Your task to perform on an android device: Open the calendar and show me this week's events? Image 0: 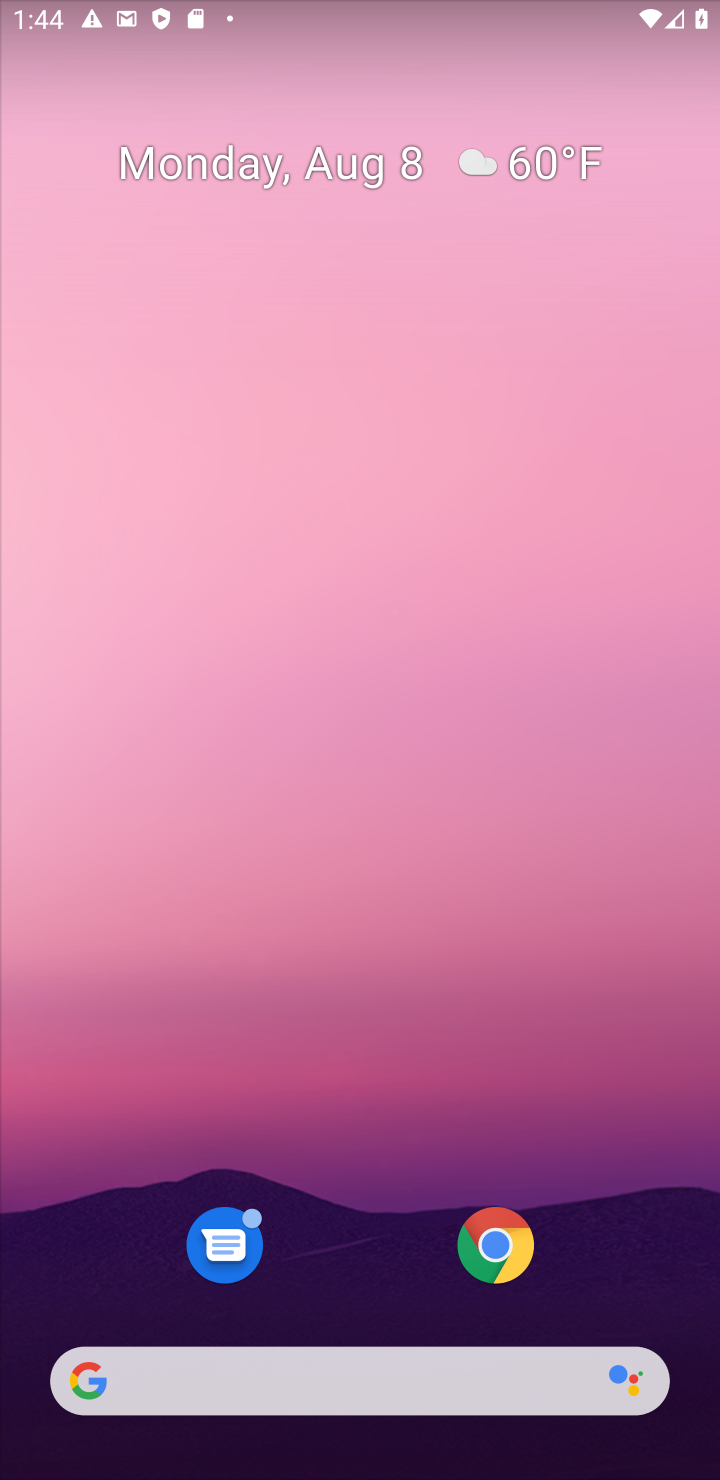
Step 0: drag from (363, 1094) to (243, 114)
Your task to perform on an android device: Open the calendar and show me this week's events? Image 1: 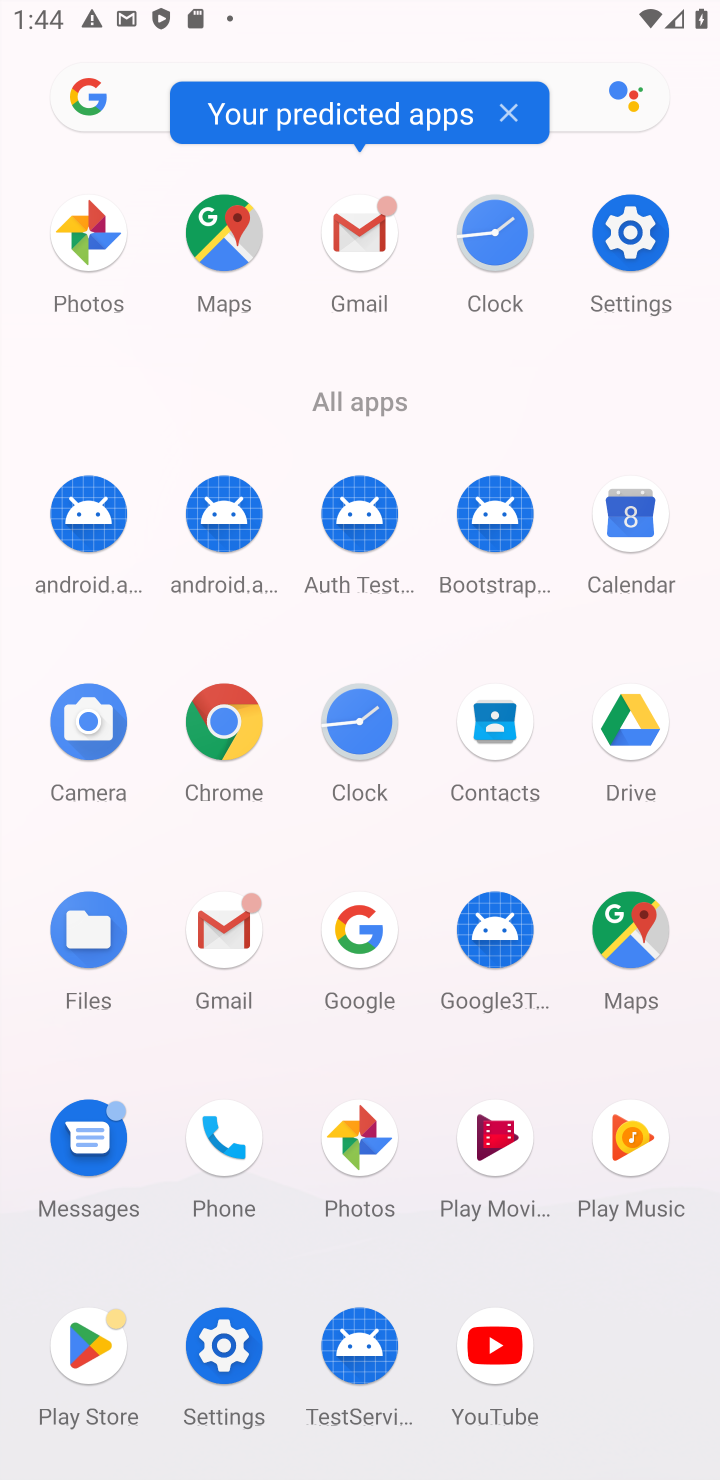
Step 1: click (625, 498)
Your task to perform on an android device: Open the calendar and show me this week's events? Image 2: 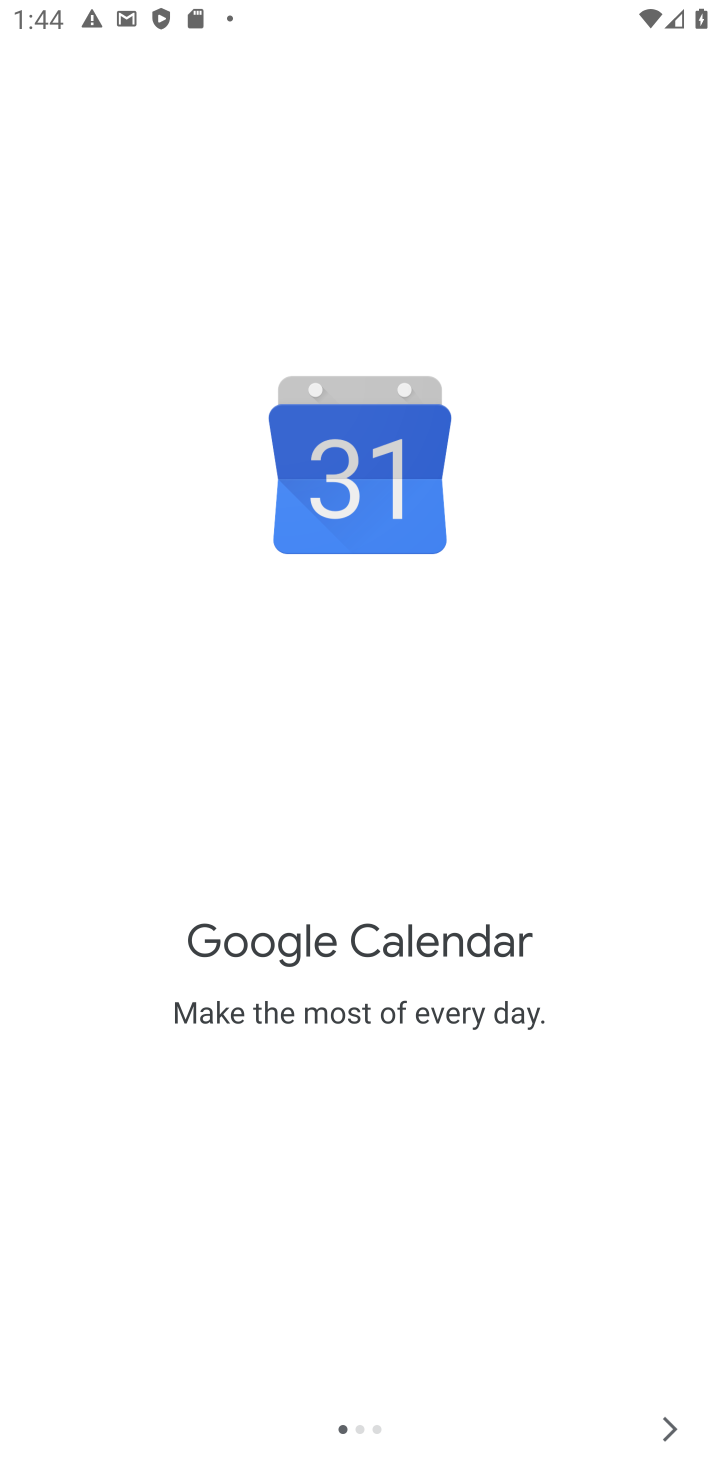
Step 2: click (668, 1426)
Your task to perform on an android device: Open the calendar and show me this week's events? Image 3: 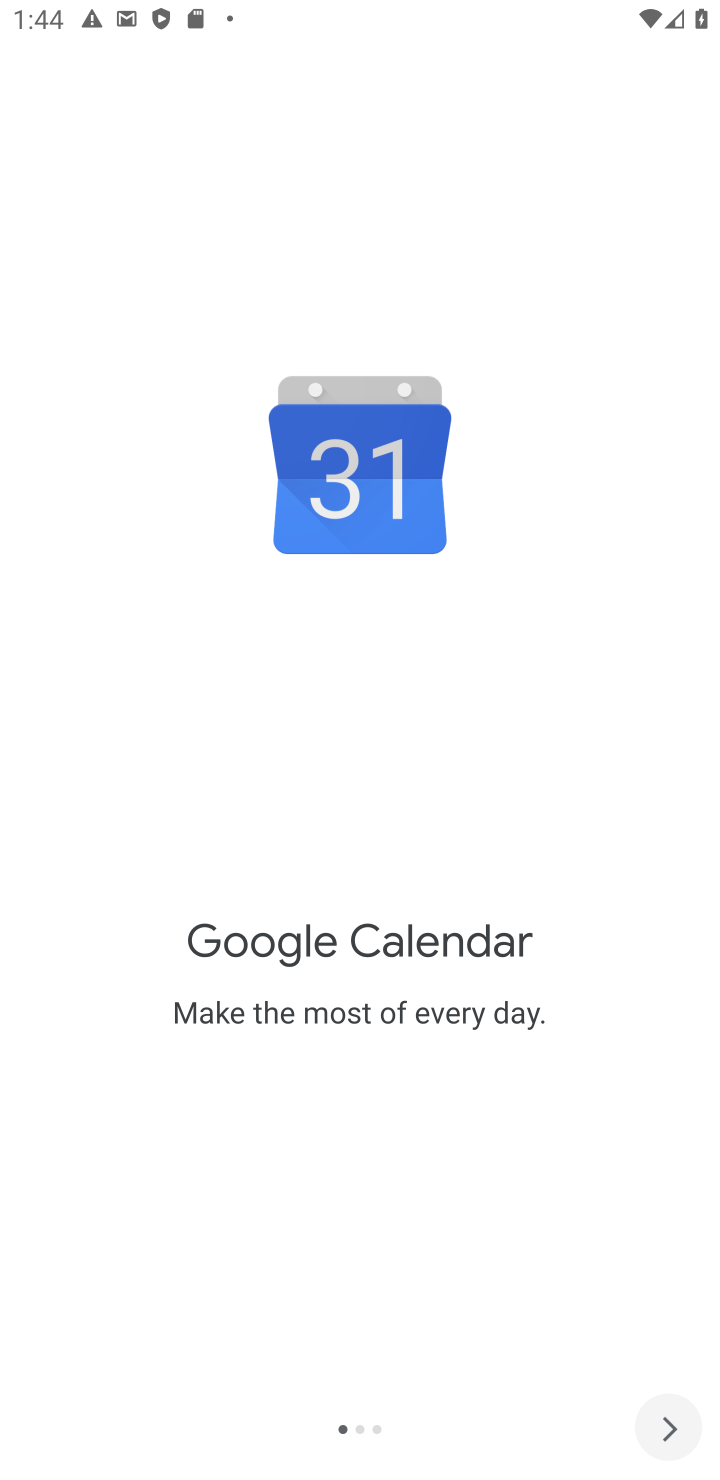
Step 3: click (668, 1426)
Your task to perform on an android device: Open the calendar and show me this week's events? Image 4: 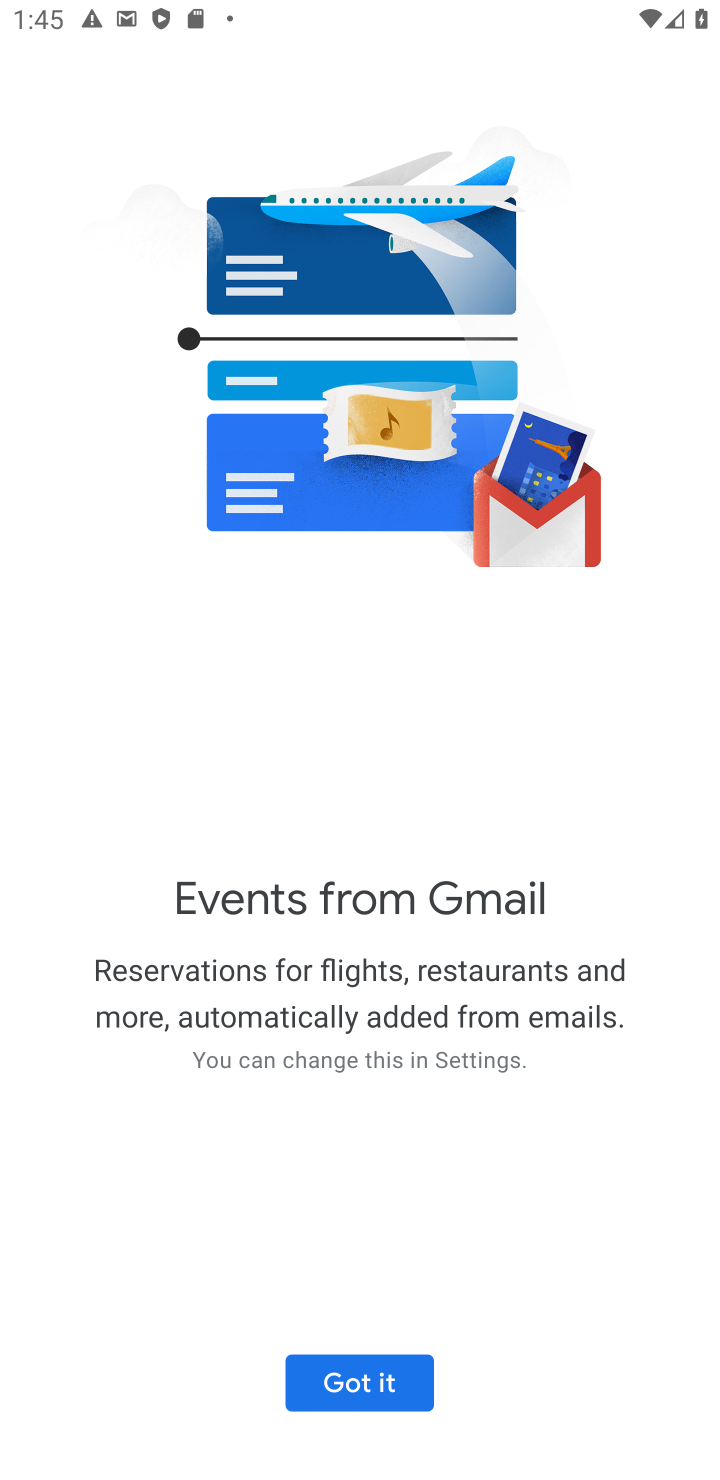
Step 4: click (362, 1373)
Your task to perform on an android device: Open the calendar and show me this week's events? Image 5: 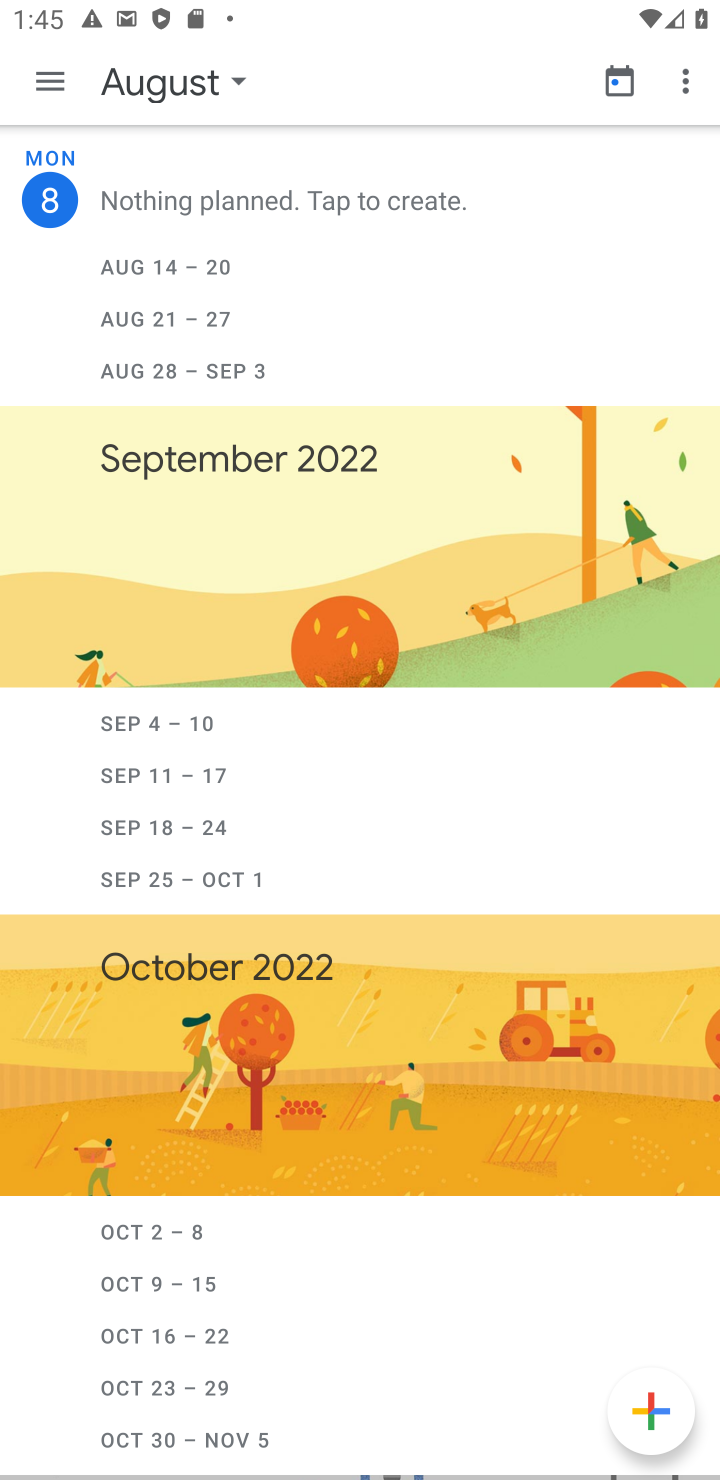
Step 5: click (53, 85)
Your task to perform on an android device: Open the calendar and show me this week's events? Image 6: 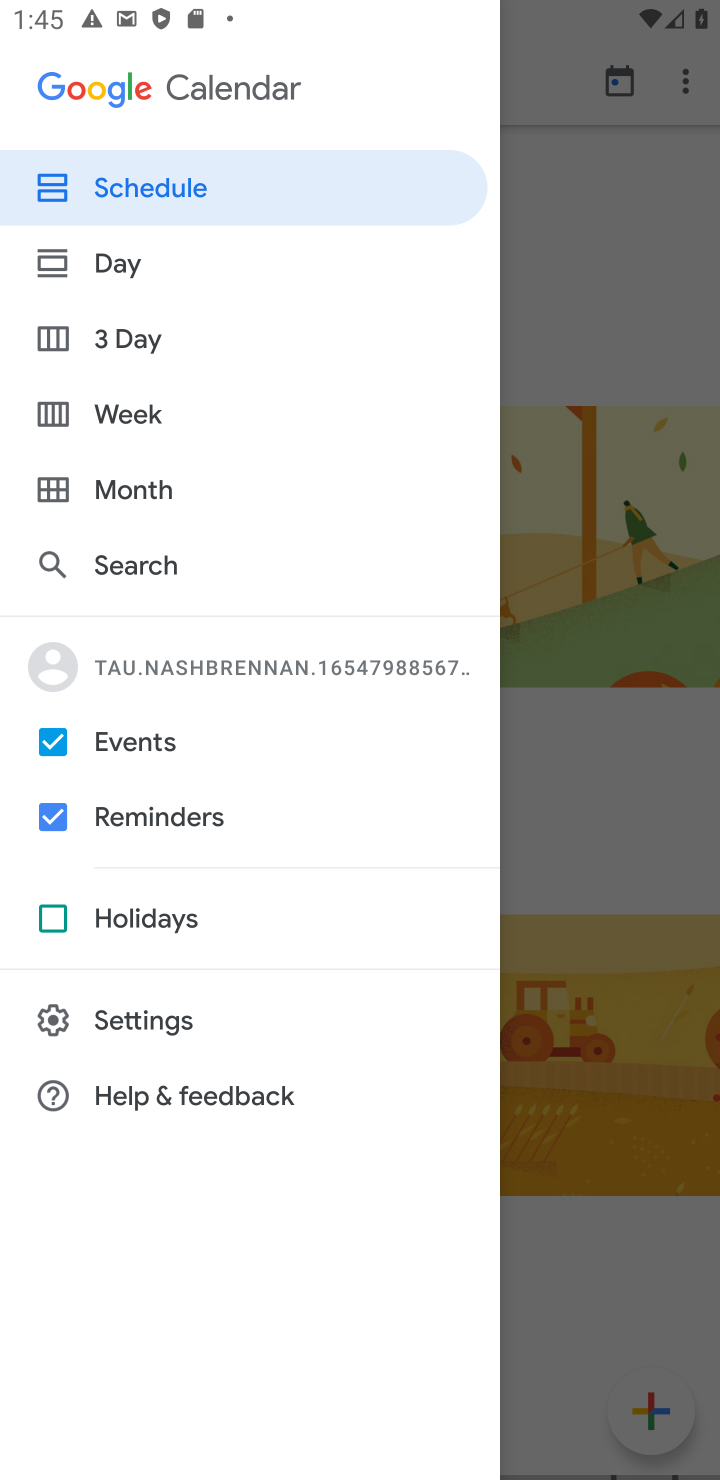
Step 6: click (119, 399)
Your task to perform on an android device: Open the calendar and show me this week's events? Image 7: 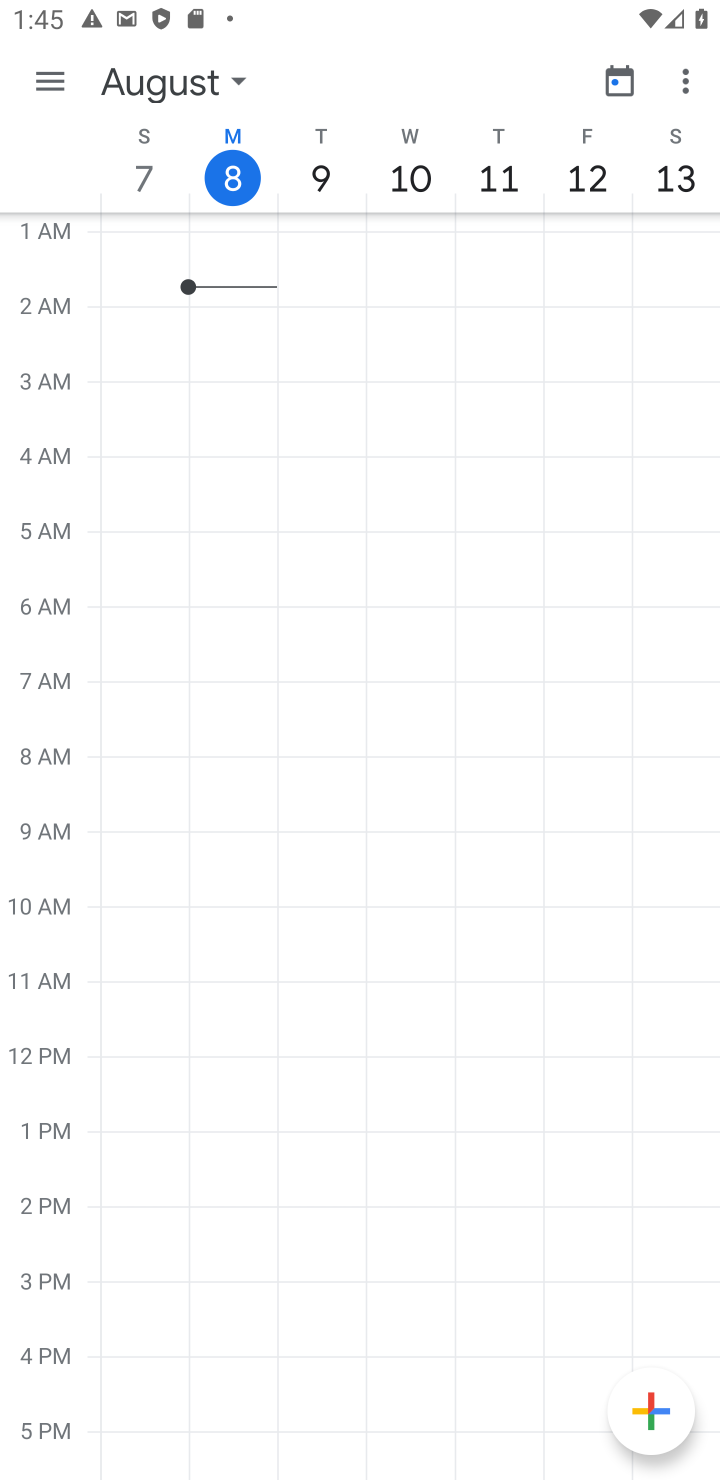
Step 7: task complete